Your task to perform on an android device: delete browsing data in the chrome app Image 0: 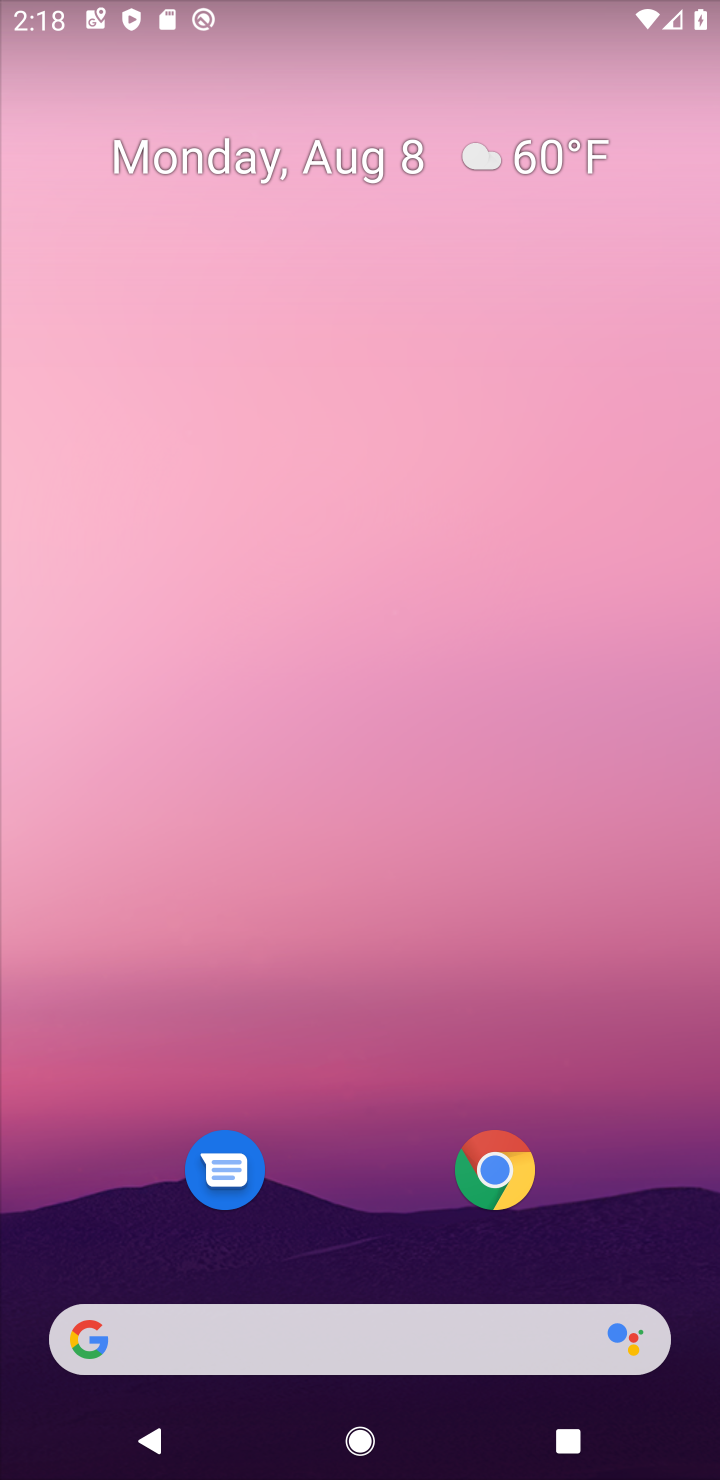
Step 0: click (498, 1178)
Your task to perform on an android device: delete browsing data in the chrome app Image 1: 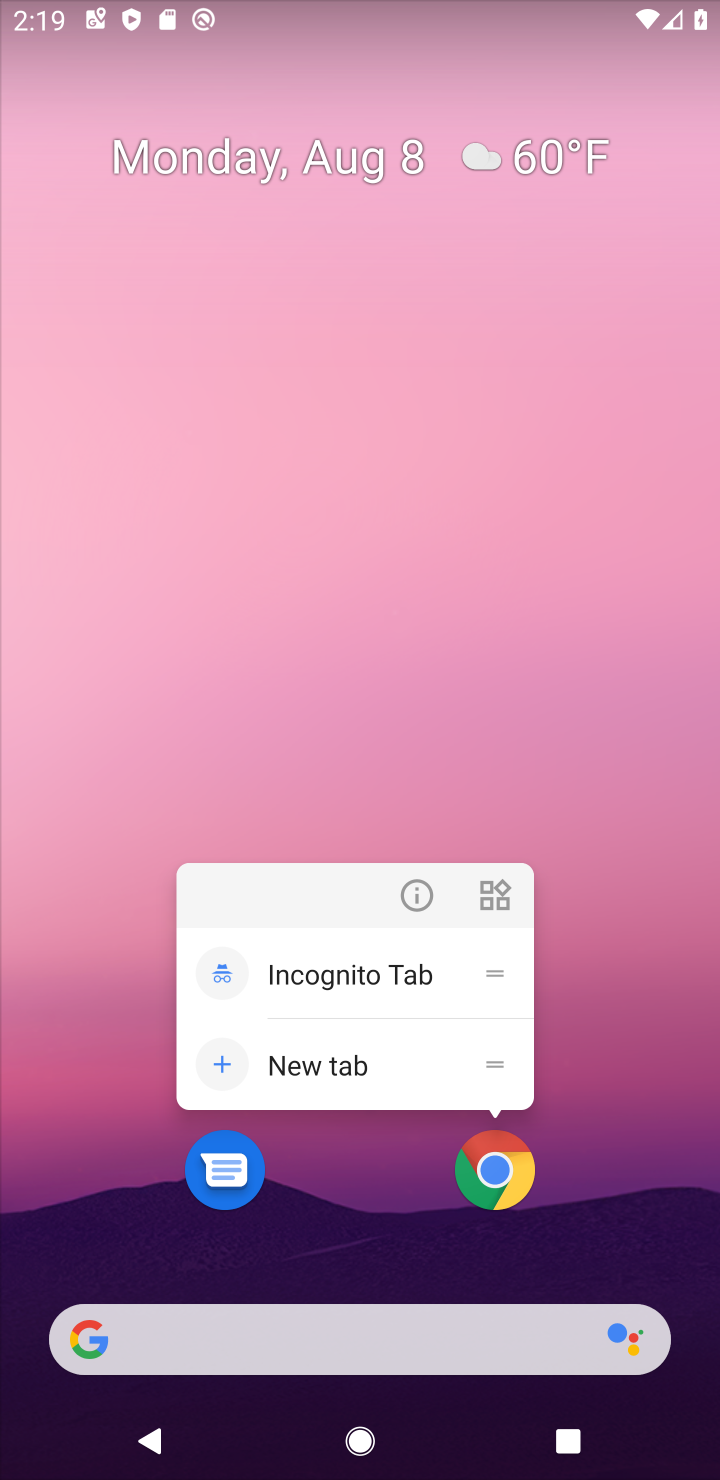
Step 1: click (498, 1191)
Your task to perform on an android device: delete browsing data in the chrome app Image 2: 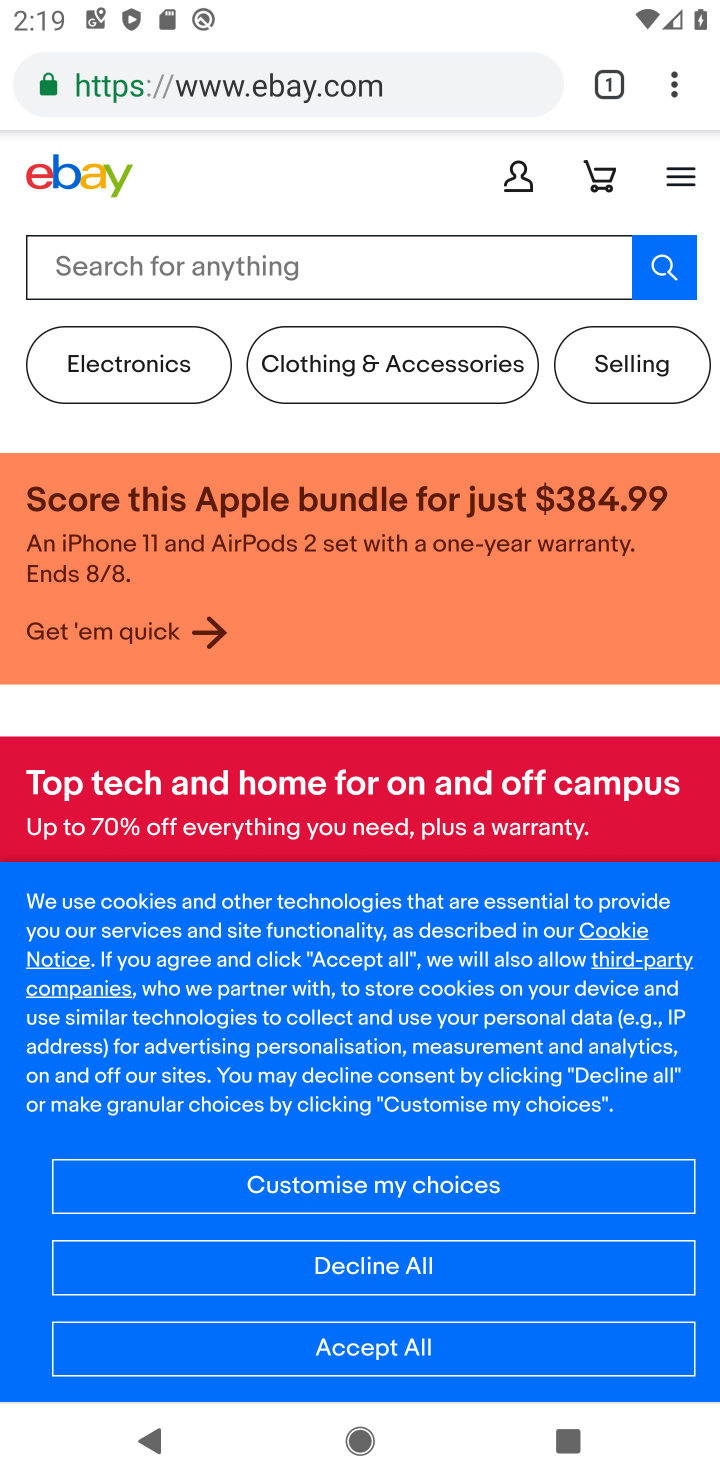
Step 2: click (670, 83)
Your task to perform on an android device: delete browsing data in the chrome app Image 3: 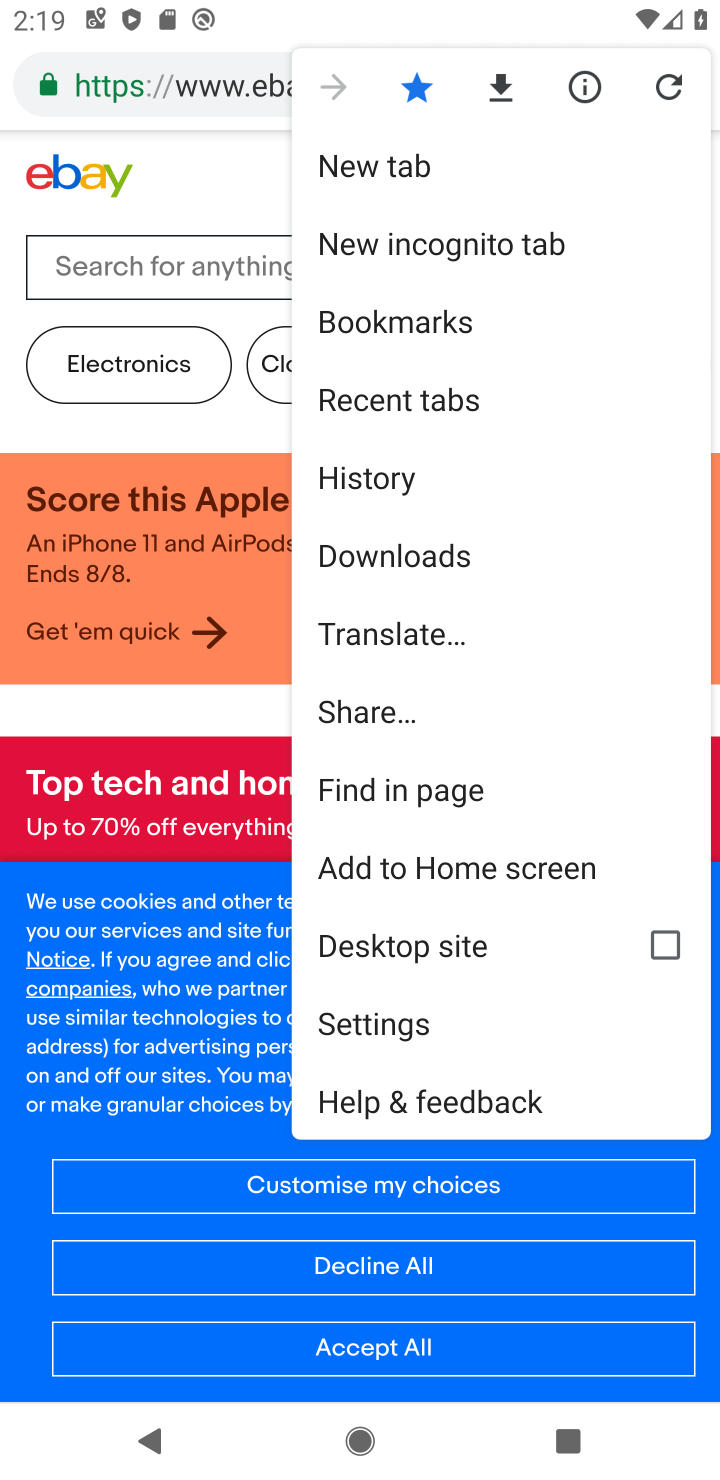
Step 3: click (370, 475)
Your task to perform on an android device: delete browsing data in the chrome app Image 4: 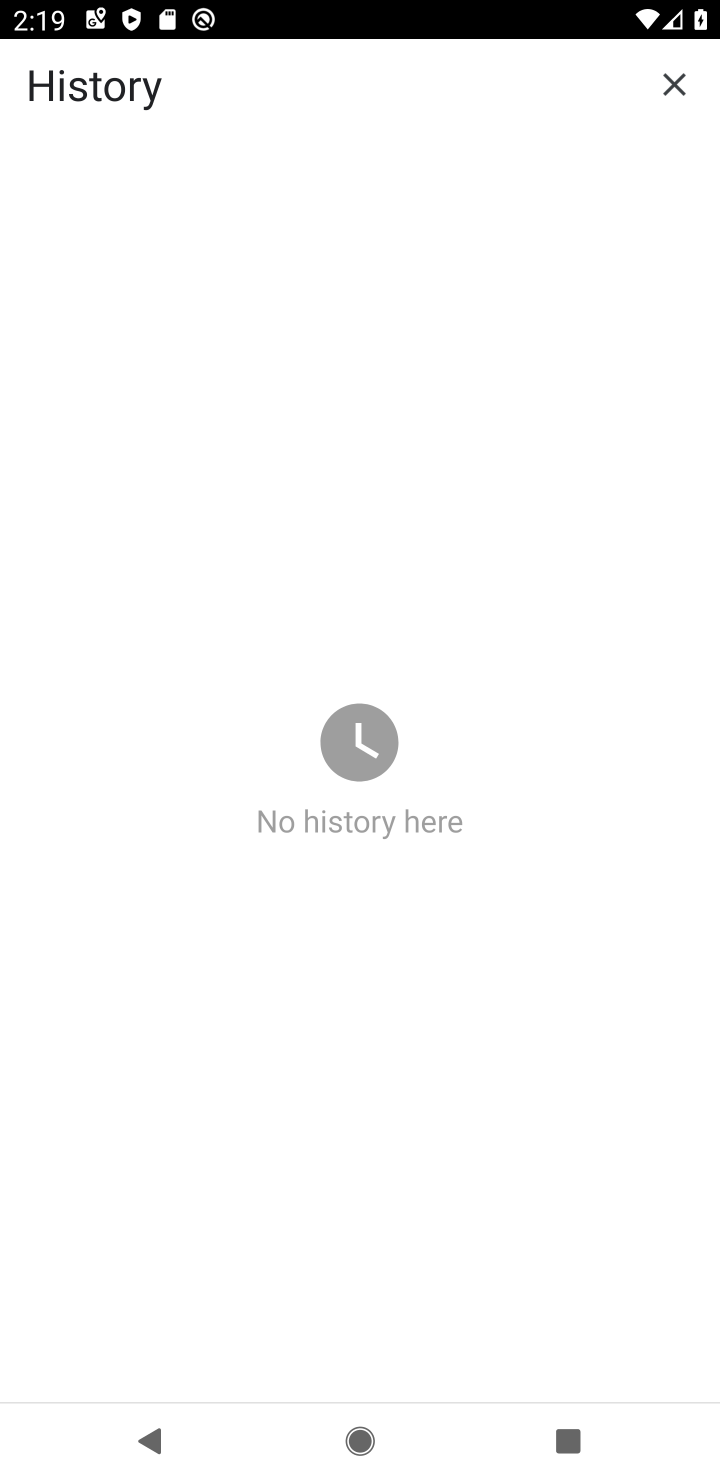
Step 4: task complete